Your task to perform on an android device: What's the weather going to be this weekend? Image 0: 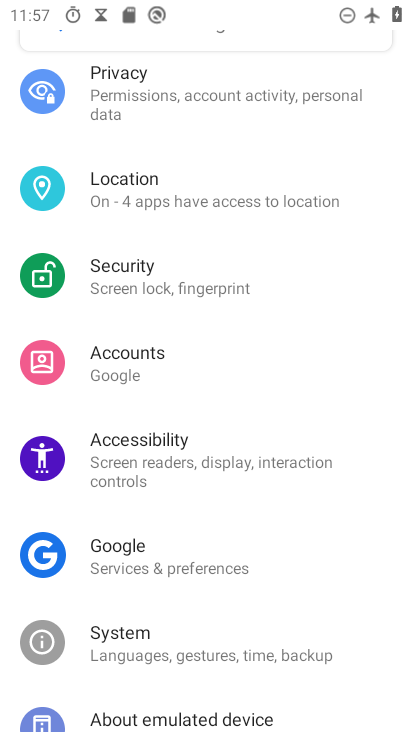
Step 0: press home button
Your task to perform on an android device: What's the weather going to be this weekend? Image 1: 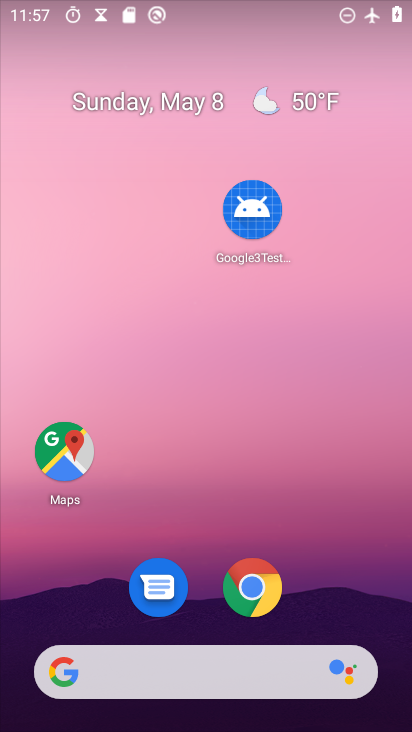
Step 1: click (252, 580)
Your task to perform on an android device: What's the weather going to be this weekend? Image 2: 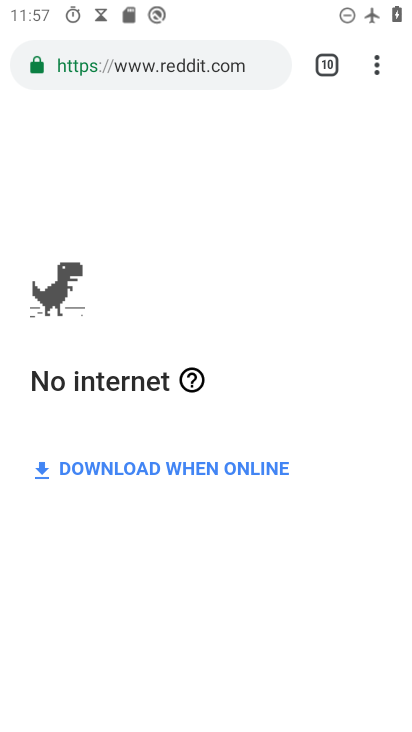
Step 2: click (376, 68)
Your task to perform on an android device: What's the weather going to be this weekend? Image 3: 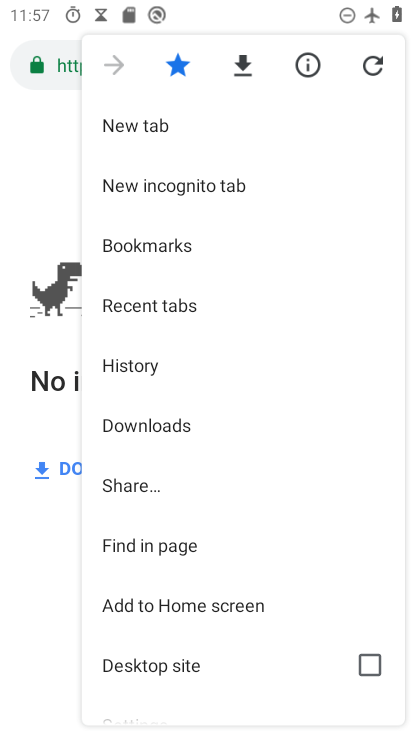
Step 3: click (48, 121)
Your task to perform on an android device: What's the weather going to be this weekend? Image 4: 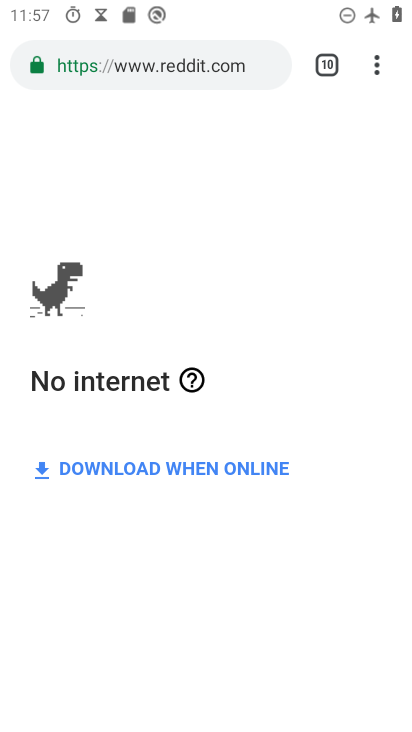
Step 4: click (331, 70)
Your task to perform on an android device: What's the weather going to be this weekend? Image 5: 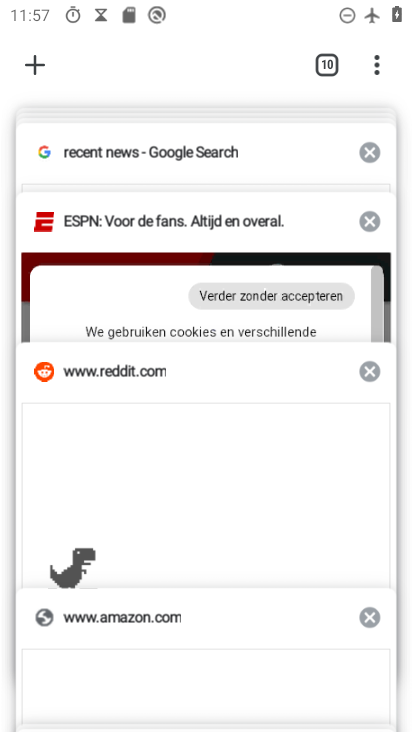
Step 5: click (32, 62)
Your task to perform on an android device: What's the weather going to be this weekend? Image 6: 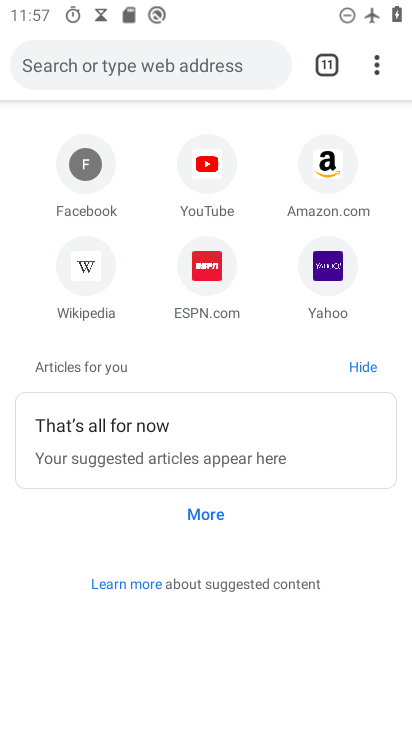
Step 6: click (172, 60)
Your task to perform on an android device: What's the weather going to be this weekend? Image 7: 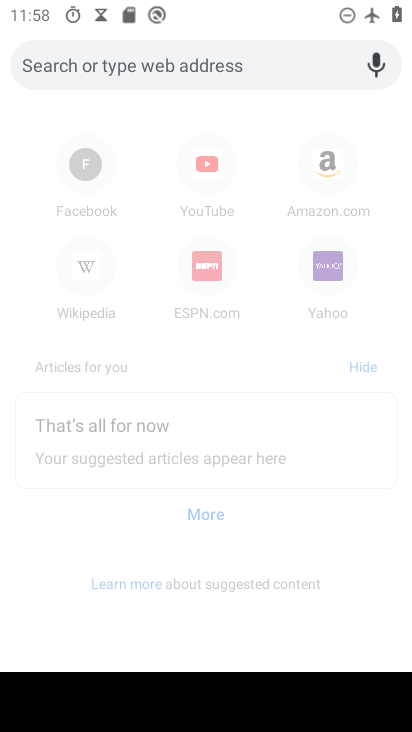
Step 7: type "whats the weather going to b e this weekend"
Your task to perform on an android device: What's the weather going to be this weekend? Image 8: 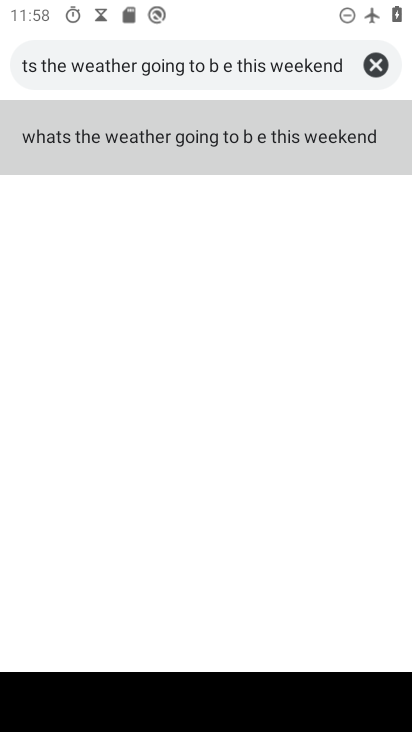
Step 8: click (144, 137)
Your task to perform on an android device: What's the weather going to be this weekend? Image 9: 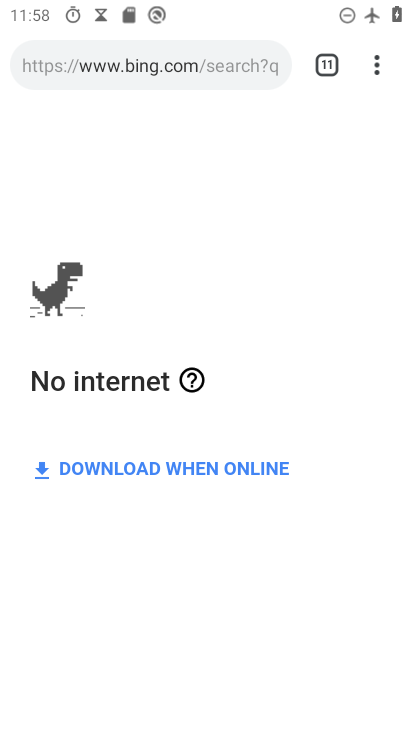
Step 9: task complete